Your task to perform on an android device: delete a single message in the gmail app Image 0: 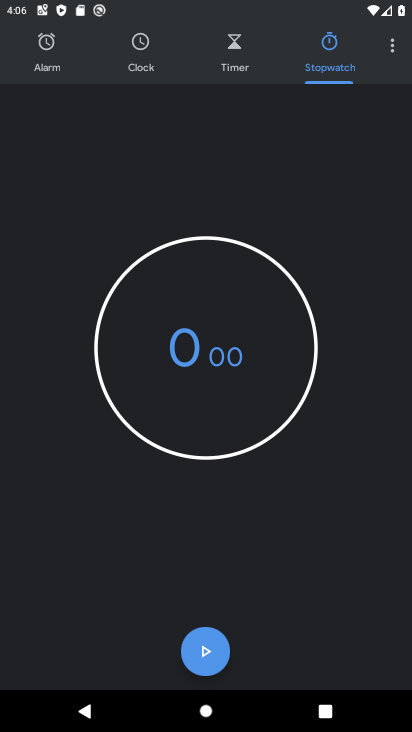
Step 0: press home button
Your task to perform on an android device: delete a single message in the gmail app Image 1: 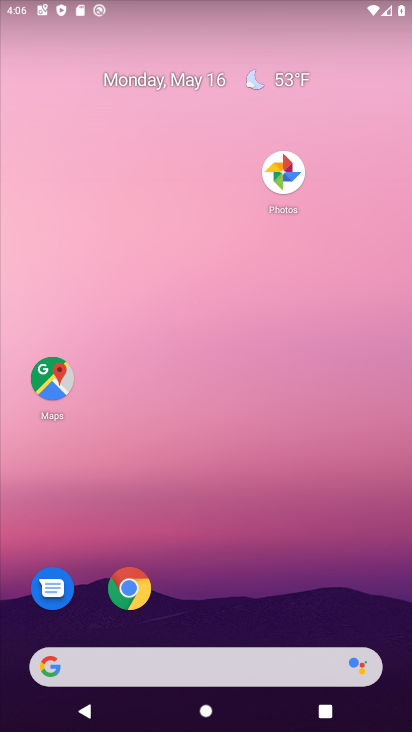
Step 1: drag from (280, 523) to (244, 123)
Your task to perform on an android device: delete a single message in the gmail app Image 2: 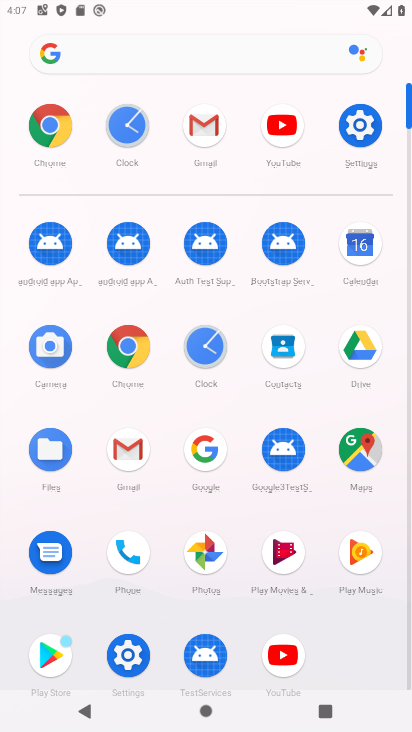
Step 2: click (207, 139)
Your task to perform on an android device: delete a single message in the gmail app Image 3: 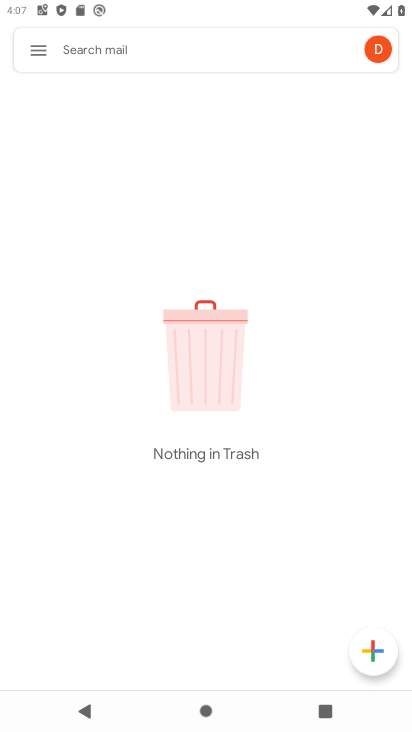
Step 3: click (207, 139)
Your task to perform on an android device: delete a single message in the gmail app Image 4: 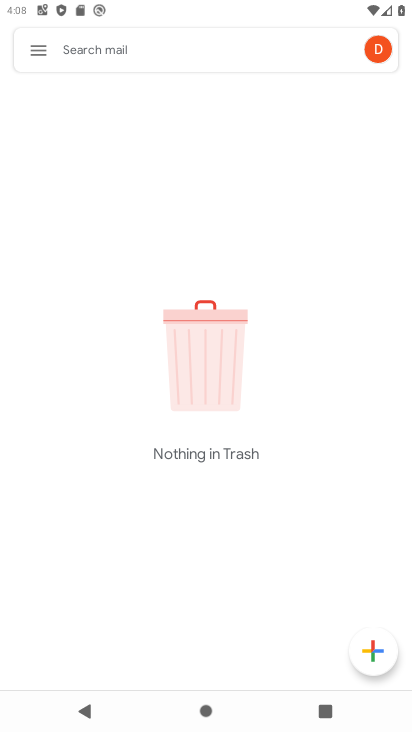
Step 4: task complete